Your task to perform on an android device: check out phone information Image 0: 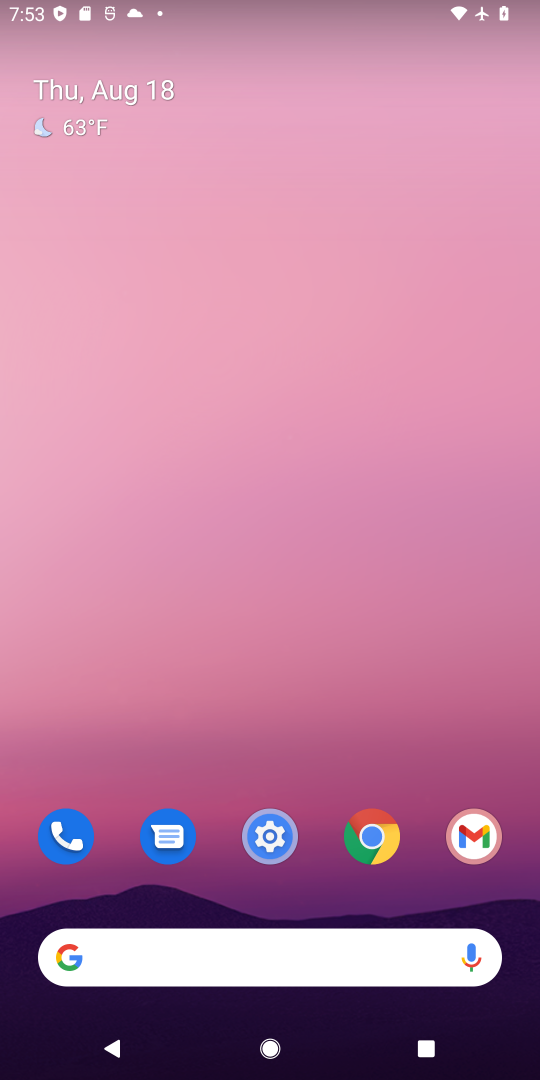
Step 0: drag from (296, 451) to (408, 119)
Your task to perform on an android device: check out phone information Image 1: 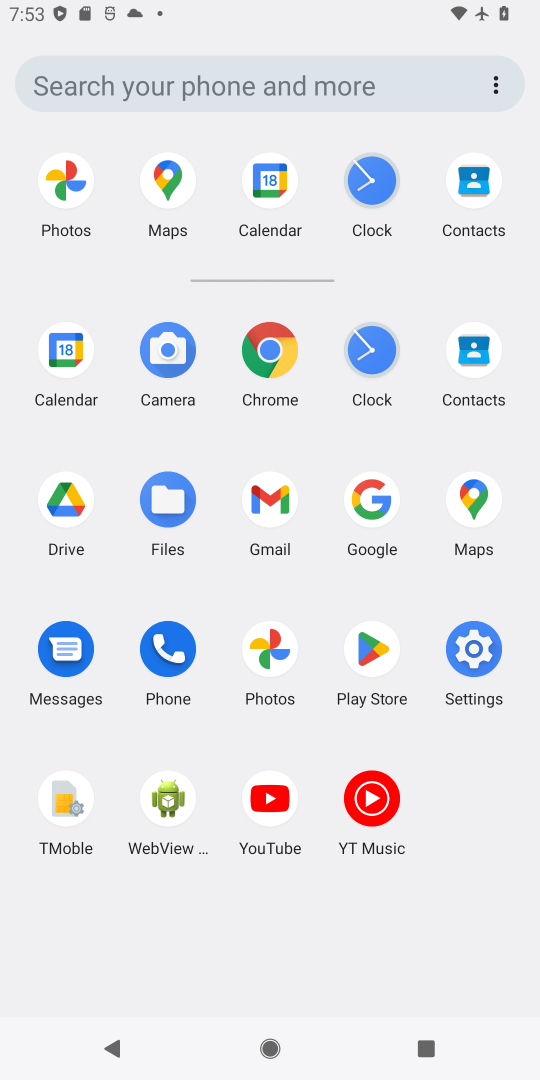
Step 1: click (160, 655)
Your task to perform on an android device: check out phone information Image 2: 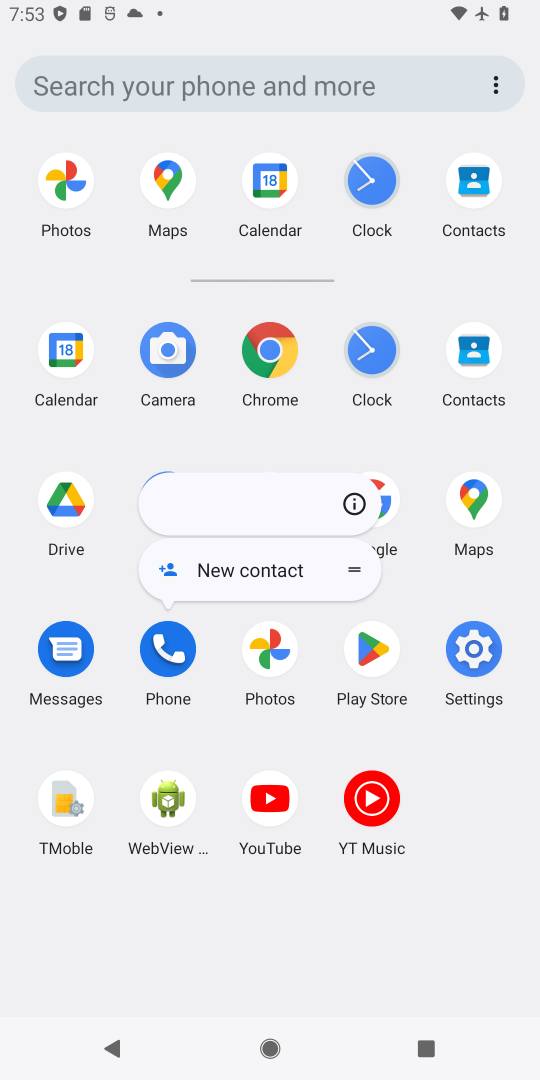
Step 2: click (363, 506)
Your task to perform on an android device: check out phone information Image 3: 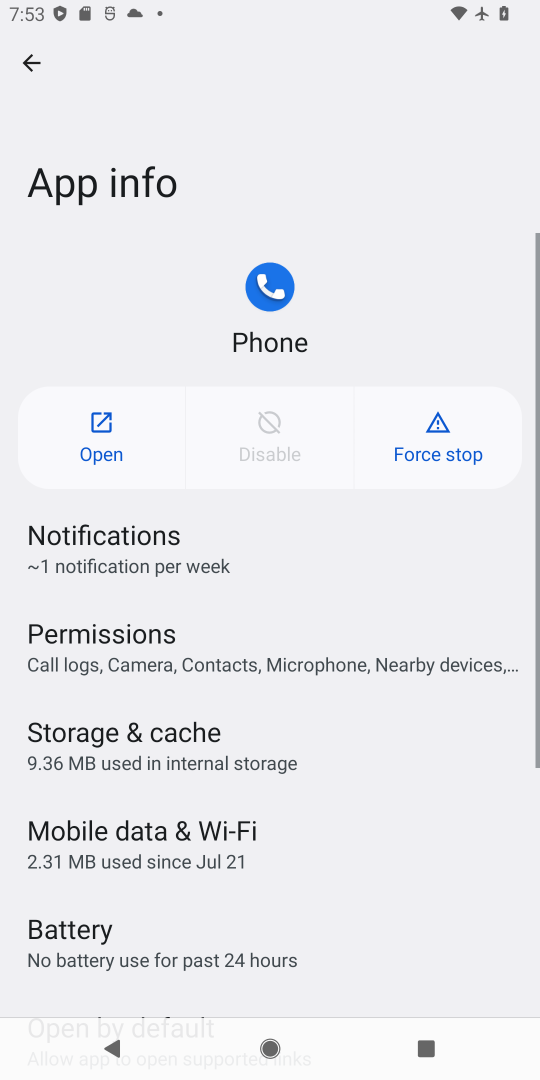
Step 3: task complete